Your task to perform on an android device: find snoozed emails in the gmail app Image 0: 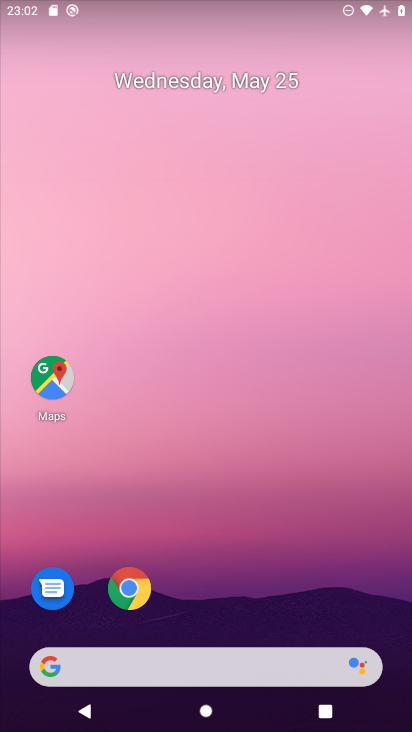
Step 0: drag from (223, 638) to (188, 106)
Your task to perform on an android device: find snoozed emails in the gmail app Image 1: 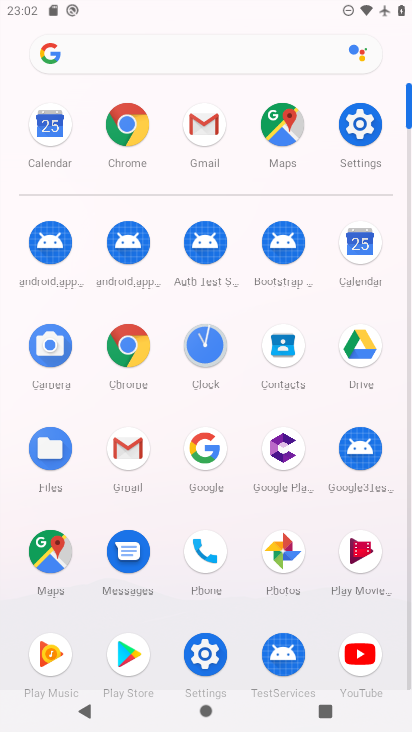
Step 1: click (191, 127)
Your task to perform on an android device: find snoozed emails in the gmail app Image 2: 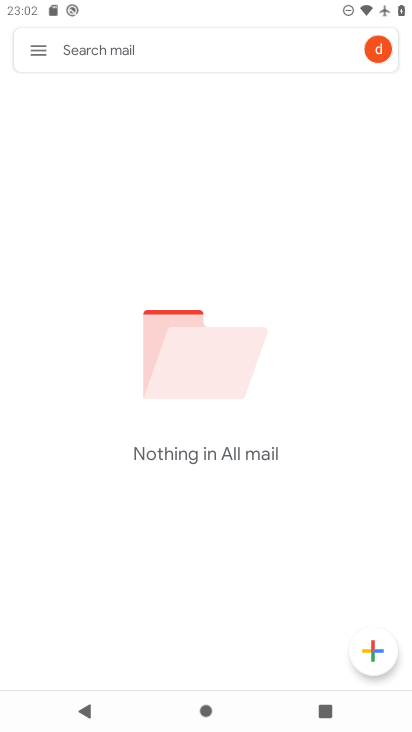
Step 2: click (37, 47)
Your task to perform on an android device: find snoozed emails in the gmail app Image 3: 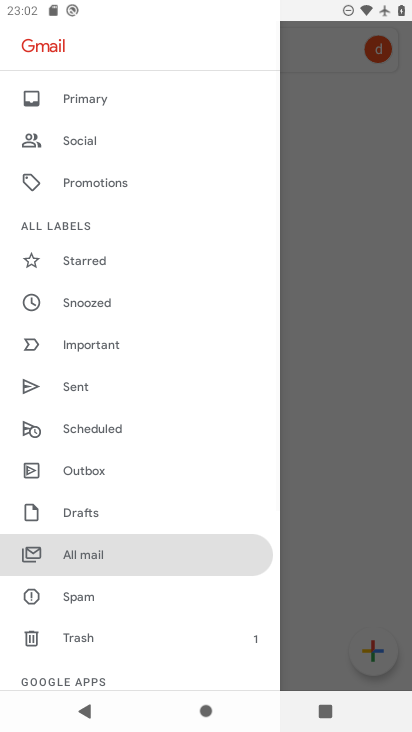
Step 3: drag from (135, 611) to (154, 459)
Your task to perform on an android device: find snoozed emails in the gmail app Image 4: 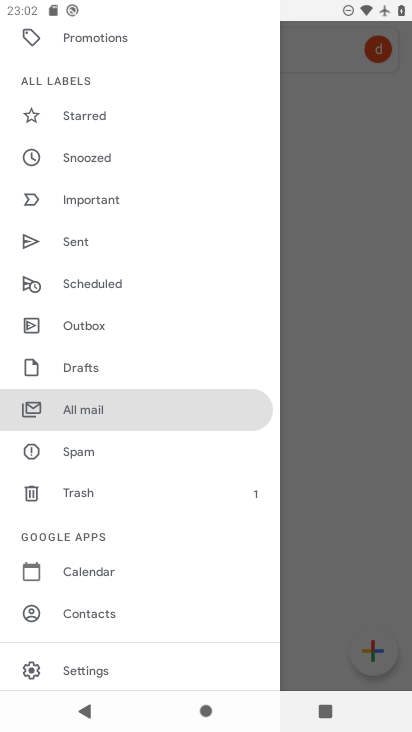
Step 4: click (77, 155)
Your task to perform on an android device: find snoozed emails in the gmail app Image 5: 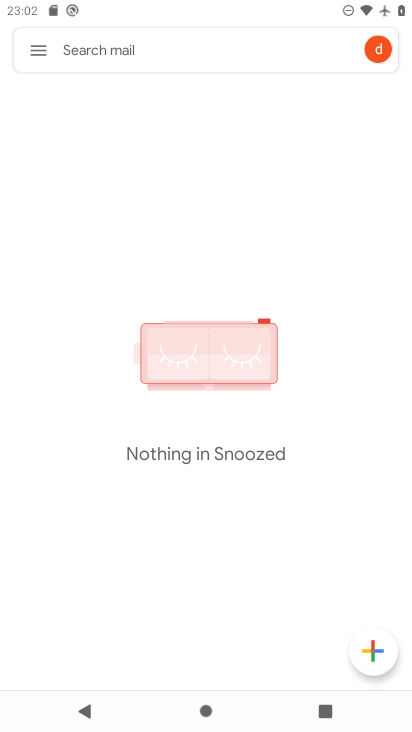
Step 5: task complete